Your task to perform on an android device: Open settings Image 0: 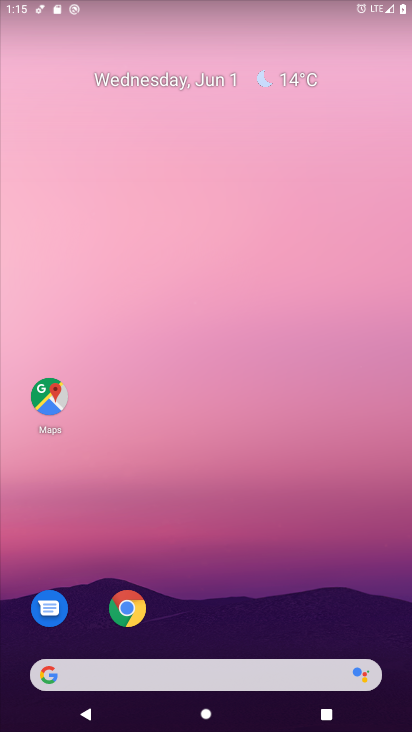
Step 0: drag from (219, 669) to (355, 1)
Your task to perform on an android device: Open settings Image 1: 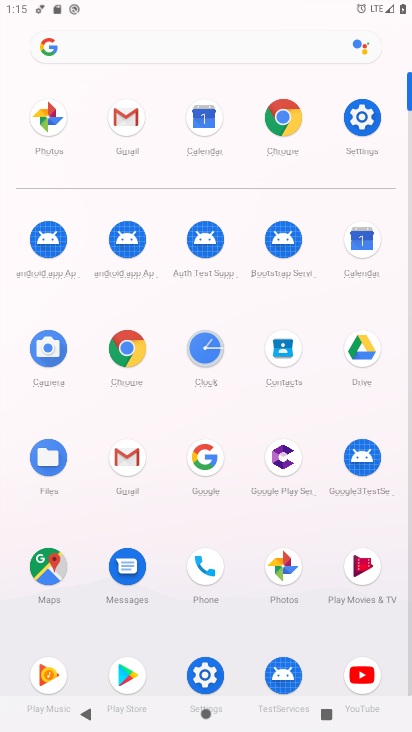
Step 1: click (361, 130)
Your task to perform on an android device: Open settings Image 2: 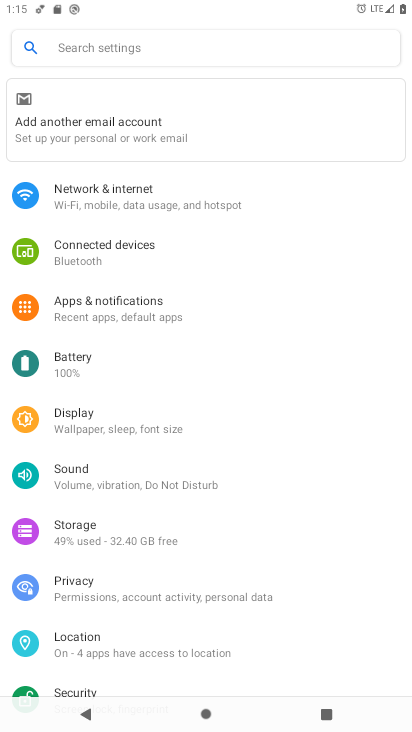
Step 2: task complete